Your task to perform on an android device: see creations saved in the google photos Image 0: 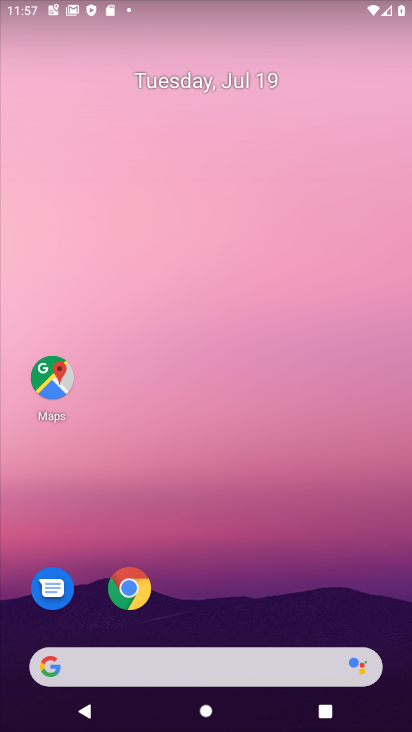
Step 0: drag from (387, 703) to (336, 134)
Your task to perform on an android device: see creations saved in the google photos Image 1: 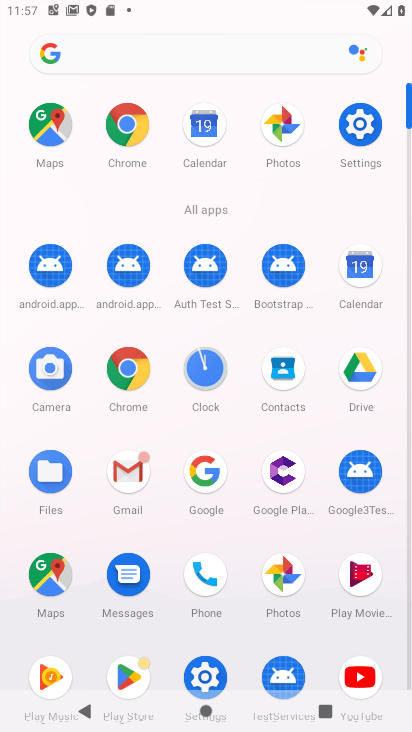
Step 1: click (270, 580)
Your task to perform on an android device: see creations saved in the google photos Image 2: 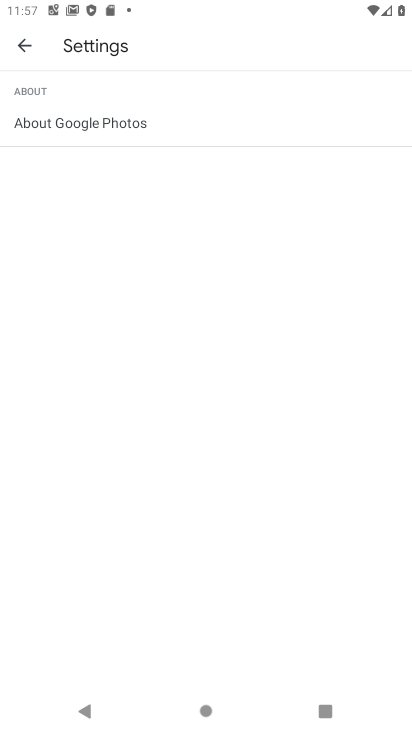
Step 2: click (26, 48)
Your task to perform on an android device: see creations saved in the google photos Image 3: 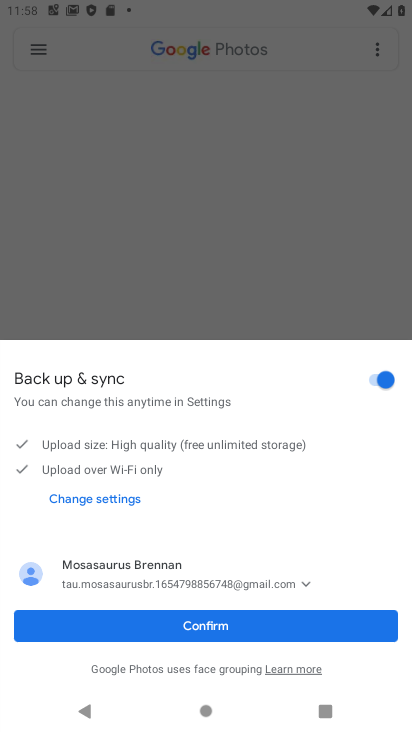
Step 3: click (197, 619)
Your task to perform on an android device: see creations saved in the google photos Image 4: 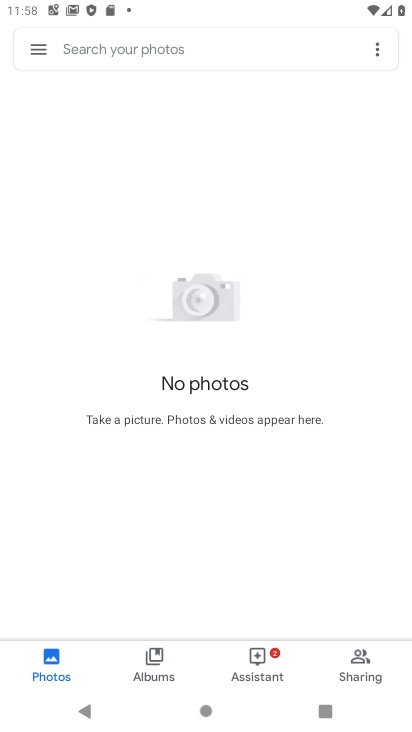
Step 4: task complete